Your task to perform on an android device: turn on priority inbox in the gmail app Image 0: 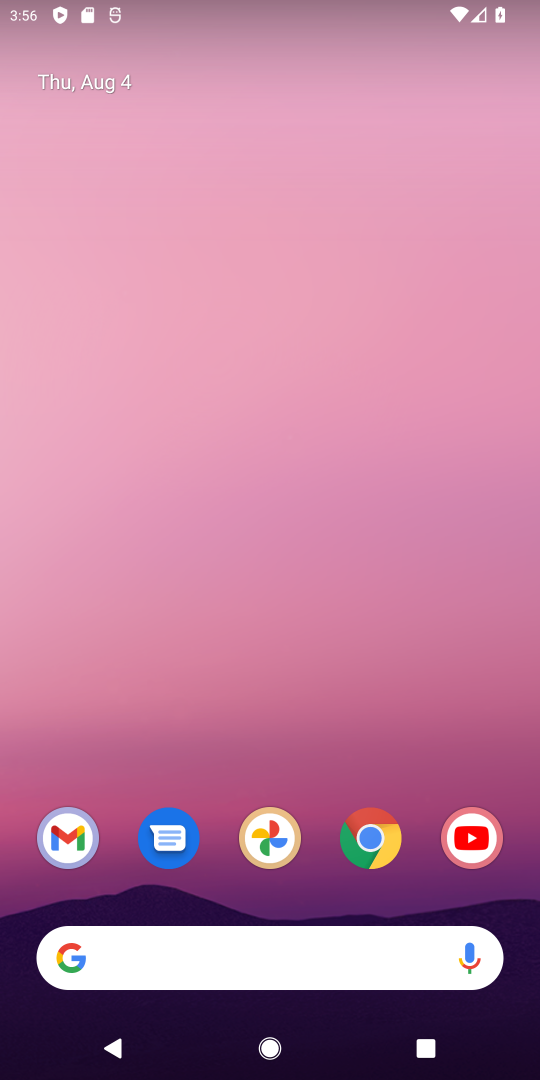
Step 0: click (60, 837)
Your task to perform on an android device: turn on priority inbox in the gmail app Image 1: 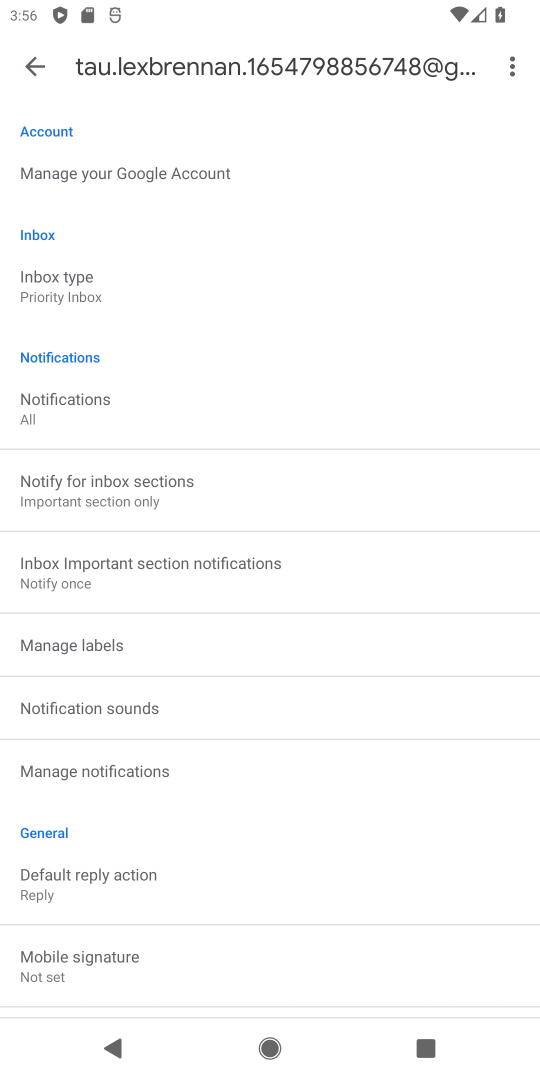
Step 1: click (60, 837)
Your task to perform on an android device: turn on priority inbox in the gmail app Image 2: 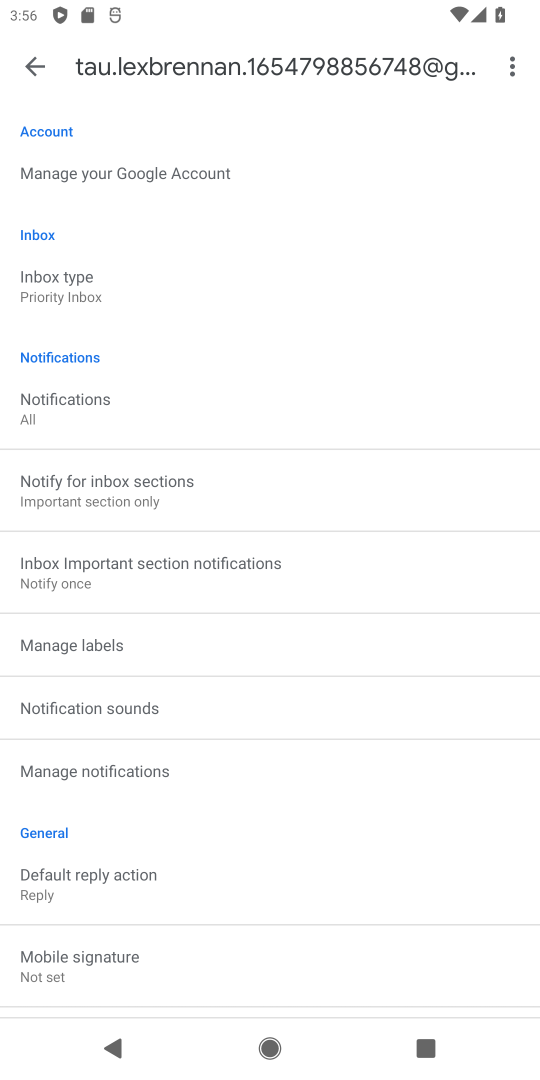
Step 2: task complete